Your task to perform on an android device: add a contact Image 0: 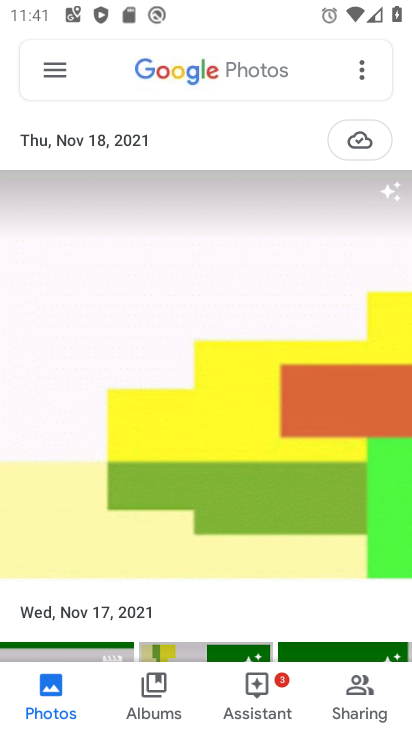
Step 0: press home button
Your task to perform on an android device: add a contact Image 1: 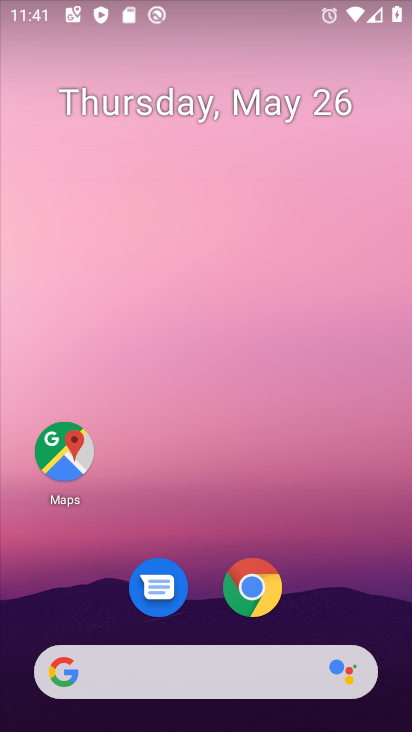
Step 1: drag from (293, 609) to (342, 6)
Your task to perform on an android device: add a contact Image 2: 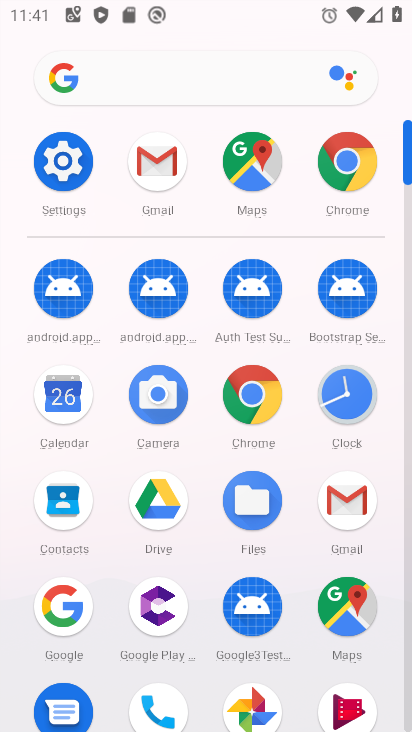
Step 2: click (148, 694)
Your task to perform on an android device: add a contact Image 3: 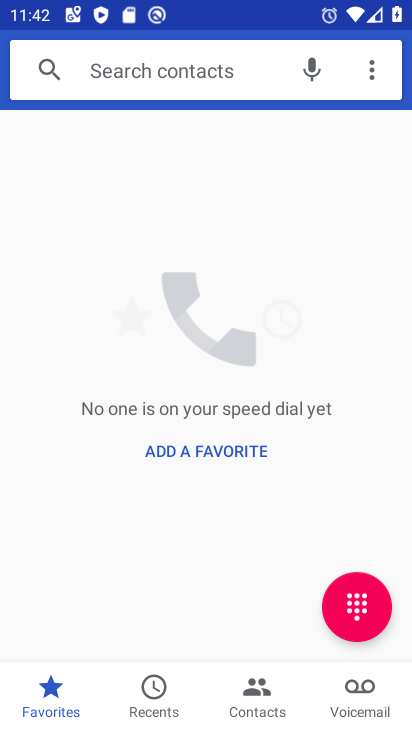
Step 3: click (250, 710)
Your task to perform on an android device: add a contact Image 4: 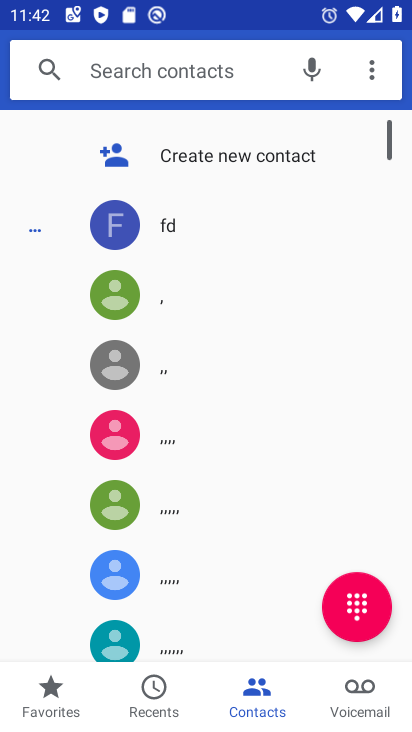
Step 4: click (256, 713)
Your task to perform on an android device: add a contact Image 5: 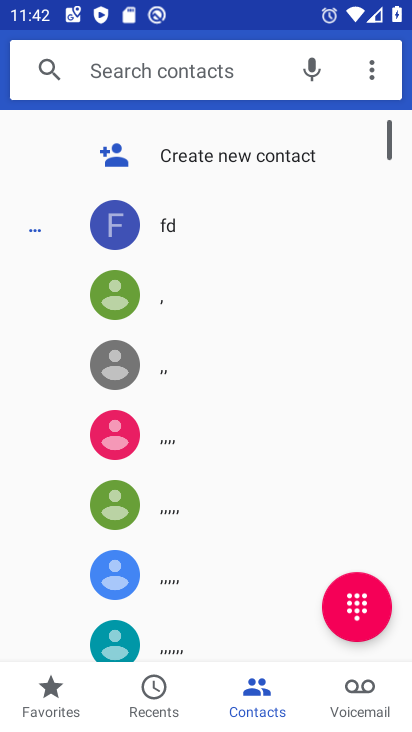
Step 5: click (236, 160)
Your task to perform on an android device: add a contact Image 6: 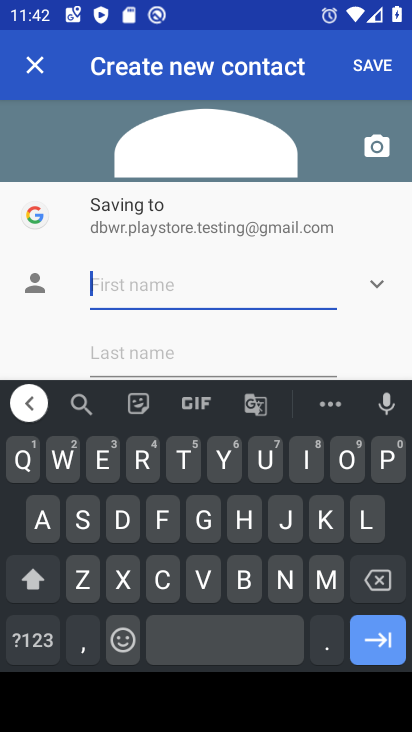
Step 6: click (196, 497)
Your task to perform on an android device: add a contact Image 7: 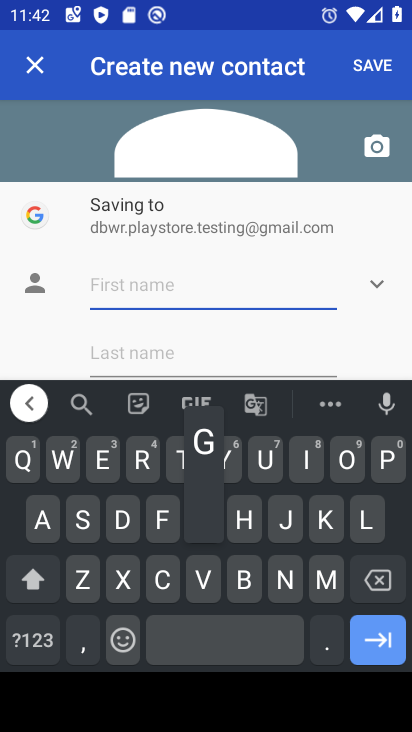
Step 7: click (119, 526)
Your task to perform on an android device: add a contact Image 8: 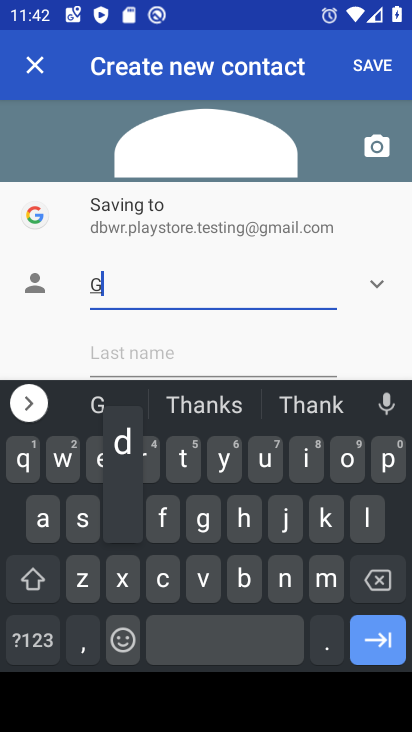
Step 8: click (215, 538)
Your task to perform on an android device: add a contact Image 9: 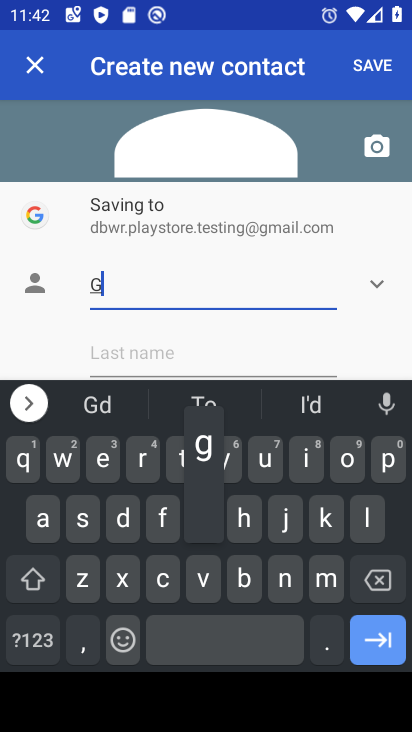
Step 9: click (232, 537)
Your task to perform on an android device: add a contact Image 10: 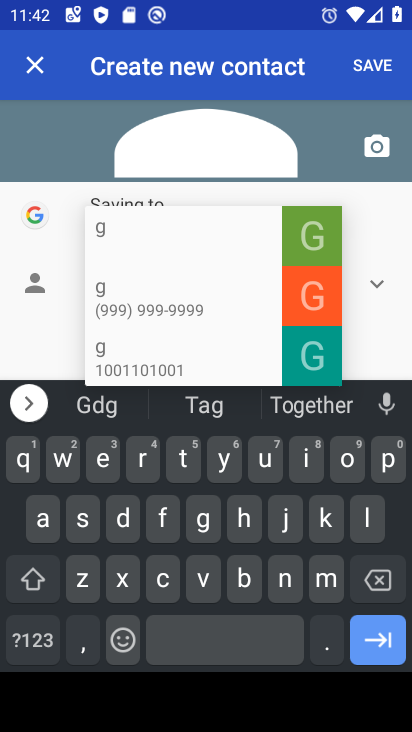
Step 10: click (172, 566)
Your task to perform on an android device: add a contact Image 11: 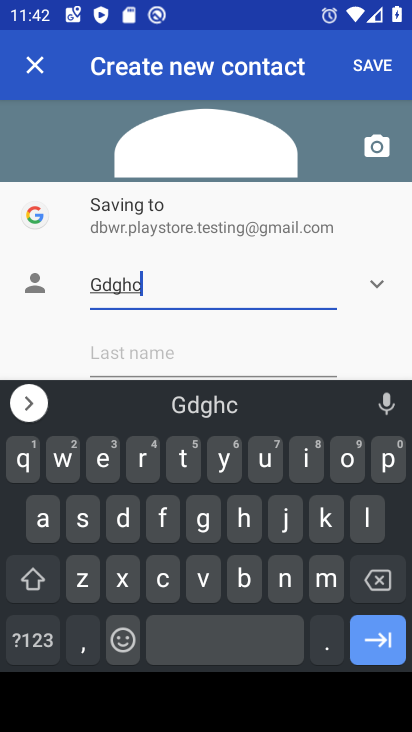
Step 11: drag from (248, 326) to (303, 127)
Your task to perform on an android device: add a contact Image 12: 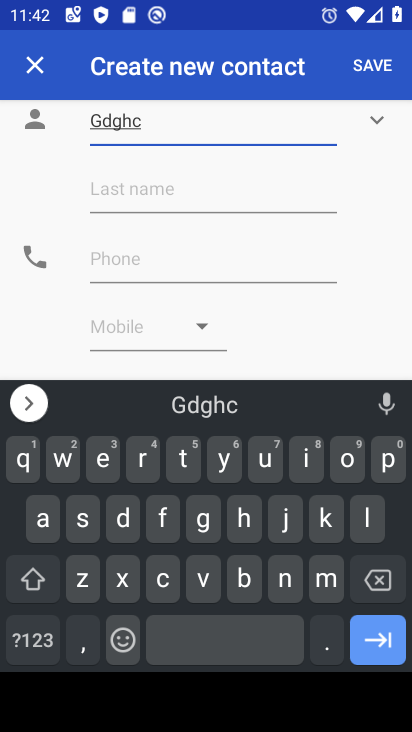
Step 12: click (178, 263)
Your task to perform on an android device: add a contact Image 13: 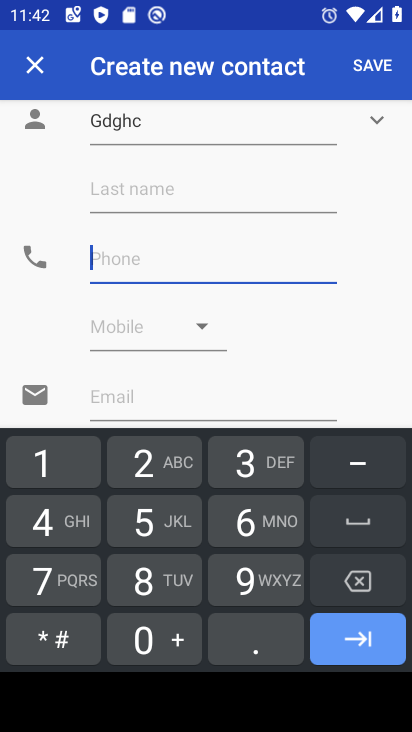
Step 13: click (146, 590)
Your task to perform on an android device: add a contact Image 14: 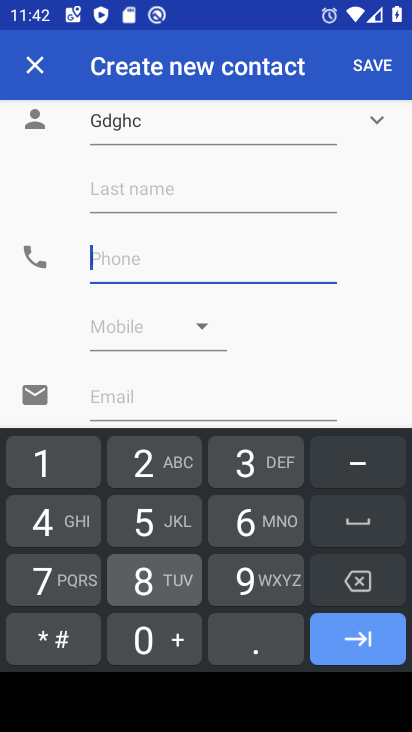
Step 14: click (105, 582)
Your task to perform on an android device: add a contact Image 15: 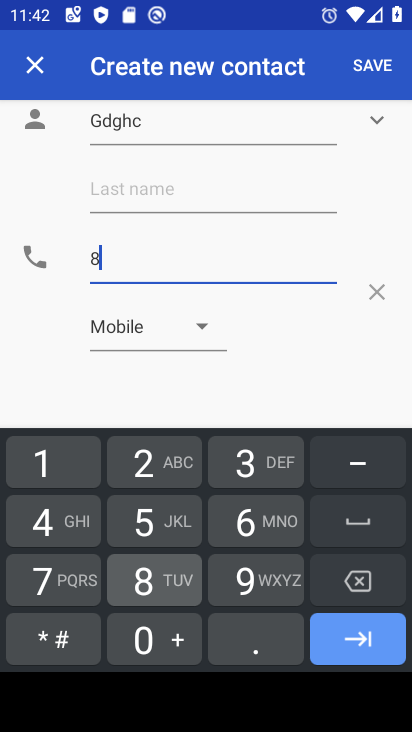
Step 15: click (210, 538)
Your task to perform on an android device: add a contact Image 16: 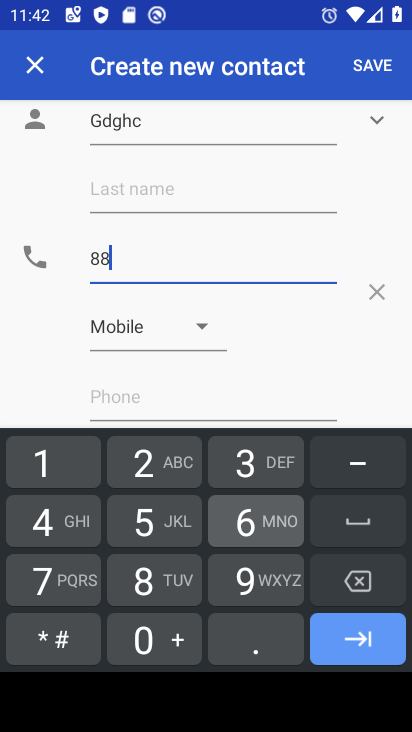
Step 16: click (210, 538)
Your task to perform on an android device: add a contact Image 17: 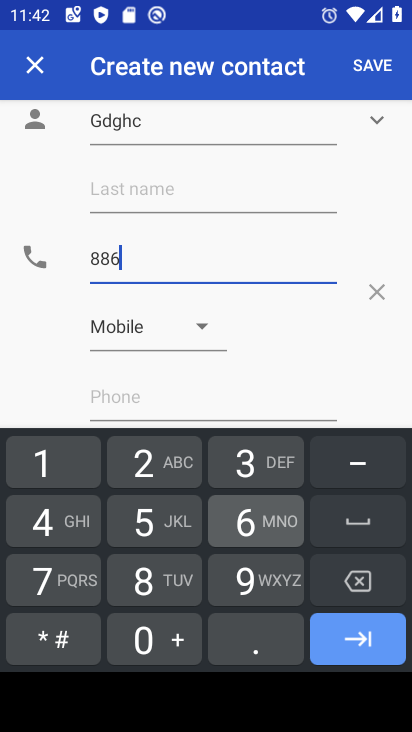
Step 17: click (131, 568)
Your task to perform on an android device: add a contact Image 18: 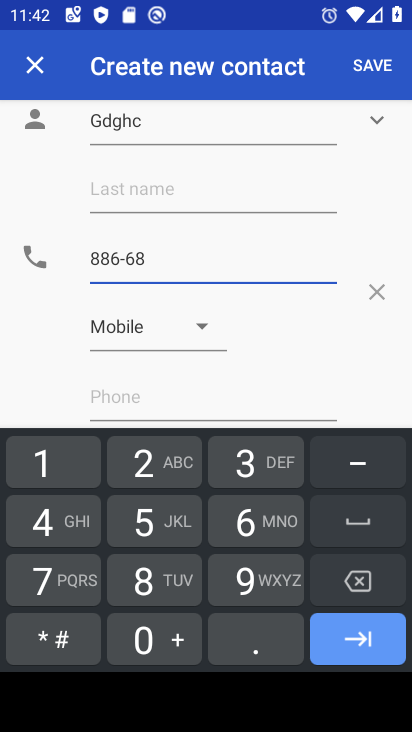
Step 18: drag from (244, 528) to (169, 575)
Your task to perform on an android device: add a contact Image 19: 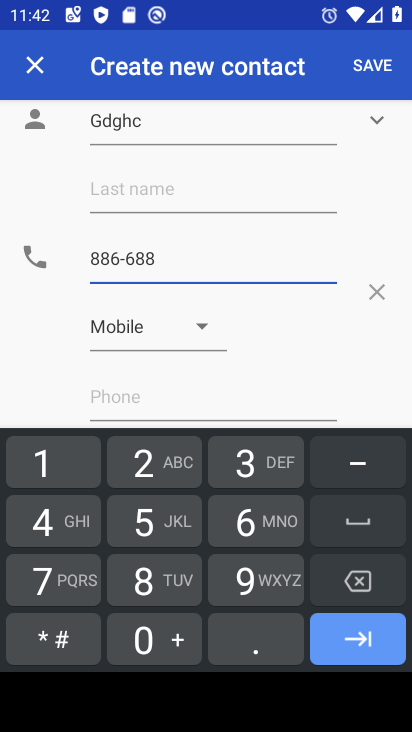
Step 19: click (375, 49)
Your task to perform on an android device: add a contact Image 20: 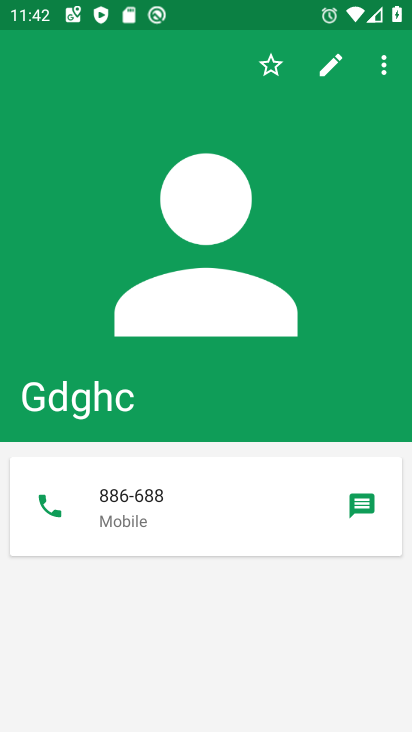
Step 20: task complete